Your task to perform on an android device: change keyboard looks Image 0: 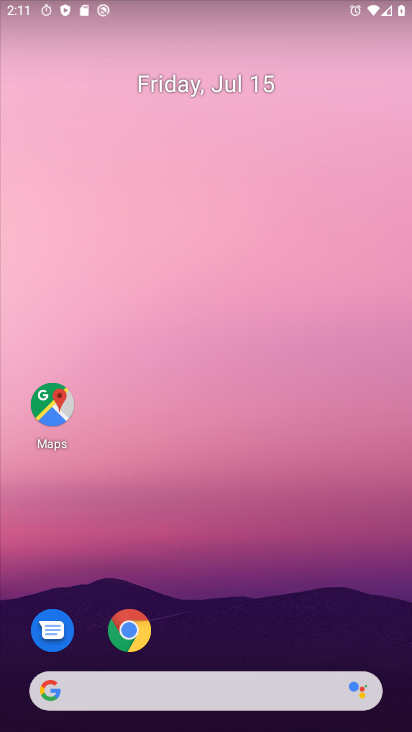
Step 0: drag from (232, 623) to (255, 226)
Your task to perform on an android device: change keyboard looks Image 1: 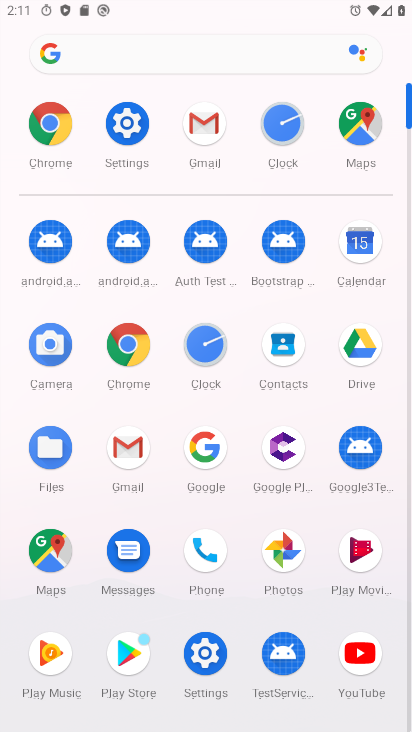
Step 1: click (145, 137)
Your task to perform on an android device: change keyboard looks Image 2: 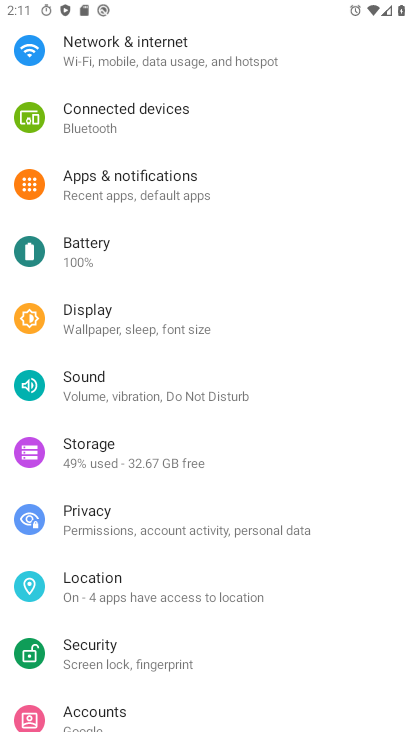
Step 2: drag from (190, 662) to (213, 331)
Your task to perform on an android device: change keyboard looks Image 3: 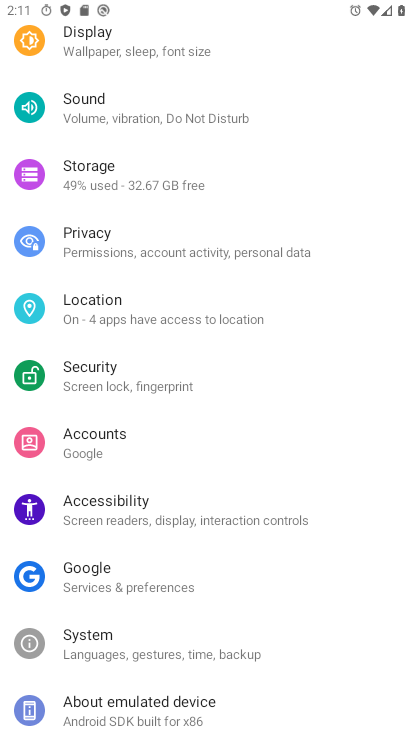
Step 3: click (114, 645)
Your task to perform on an android device: change keyboard looks Image 4: 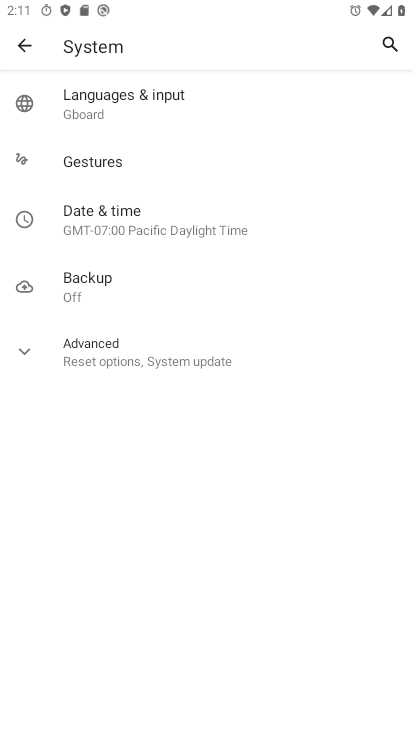
Step 4: click (120, 120)
Your task to perform on an android device: change keyboard looks Image 5: 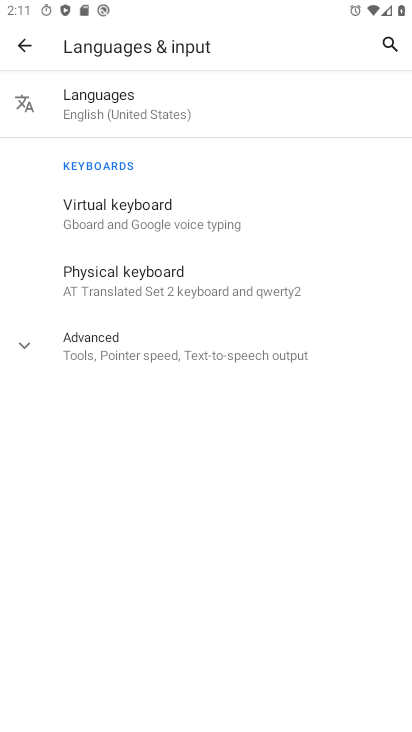
Step 5: click (169, 224)
Your task to perform on an android device: change keyboard looks Image 6: 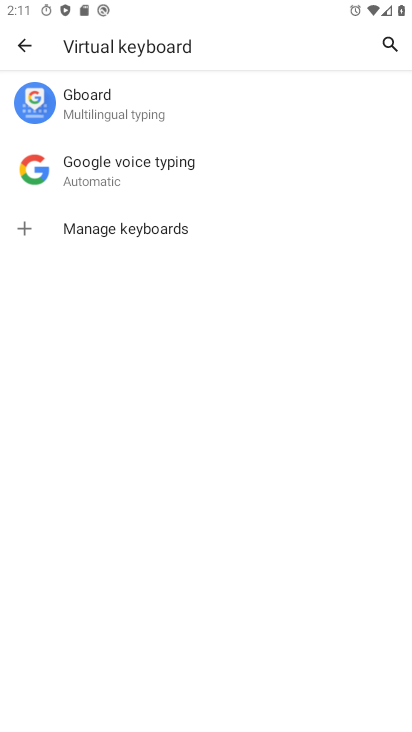
Step 6: click (137, 115)
Your task to perform on an android device: change keyboard looks Image 7: 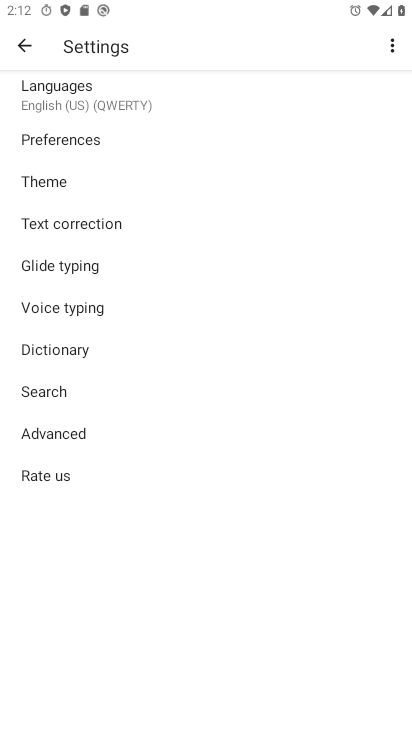
Step 7: click (61, 168)
Your task to perform on an android device: change keyboard looks Image 8: 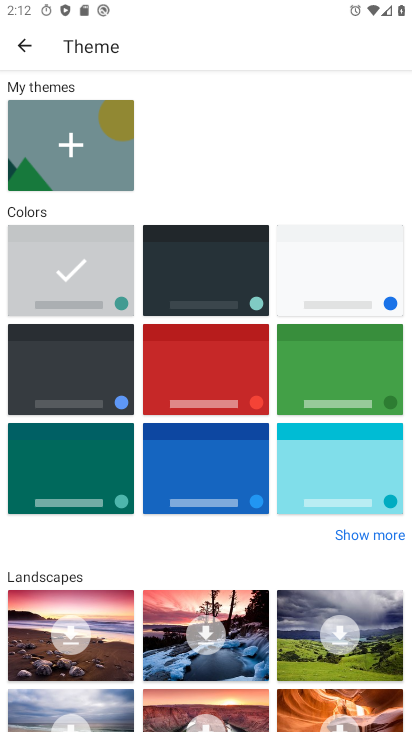
Step 8: click (299, 282)
Your task to perform on an android device: change keyboard looks Image 9: 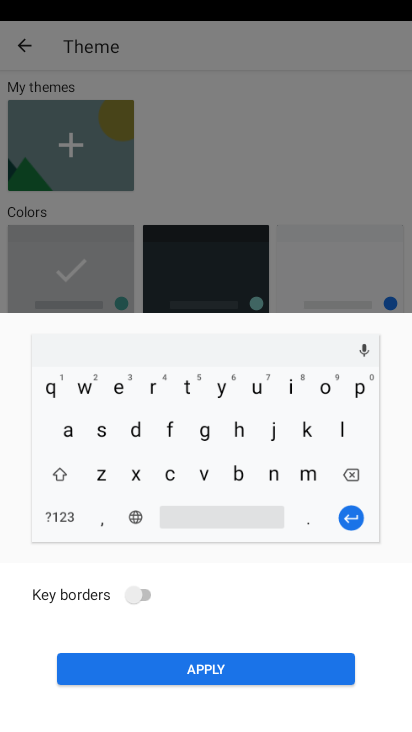
Step 9: click (236, 671)
Your task to perform on an android device: change keyboard looks Image 10: 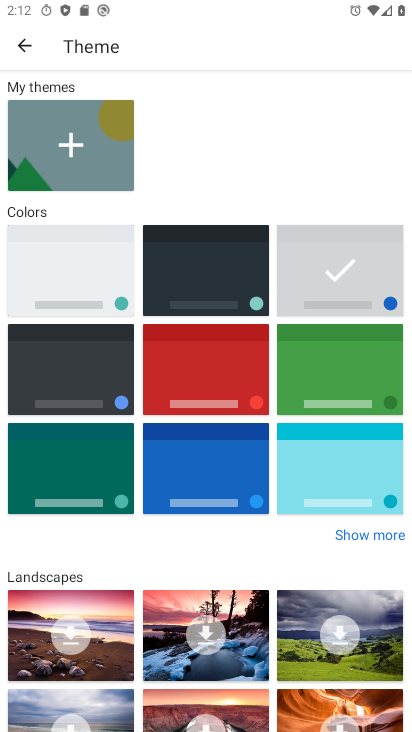
Step 10: task complete